Your task to perform on an android device: Find coffee shops on Maps Image 0: 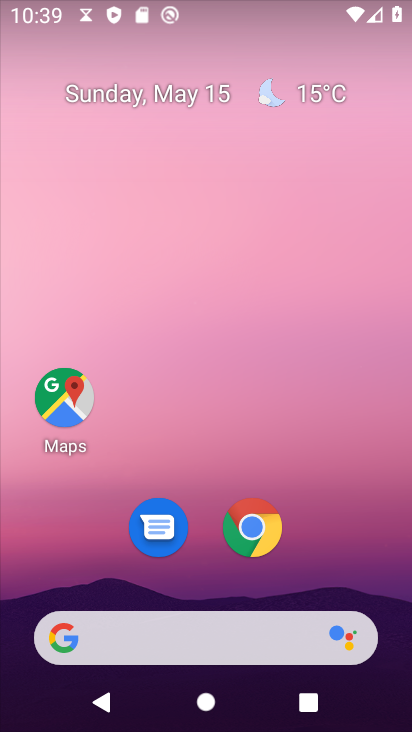
Step 0: click (66, 399)
Your task to perform on an android device: Find coffee shops on Maps Image 1: 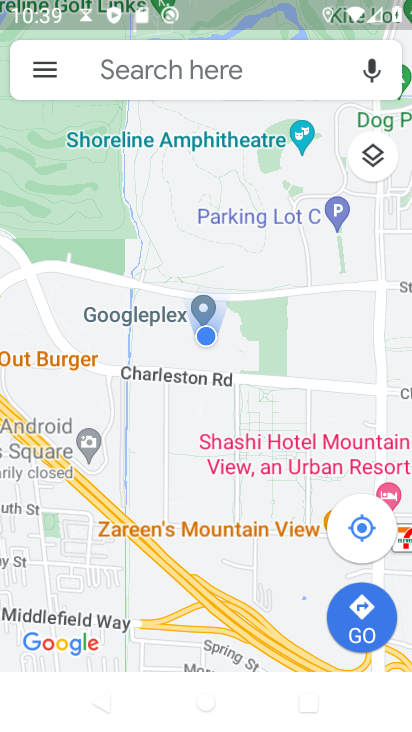
Step 1: click (165, 70)
Your task to perform on an android device: Find coffee shops on Maps Image 2: 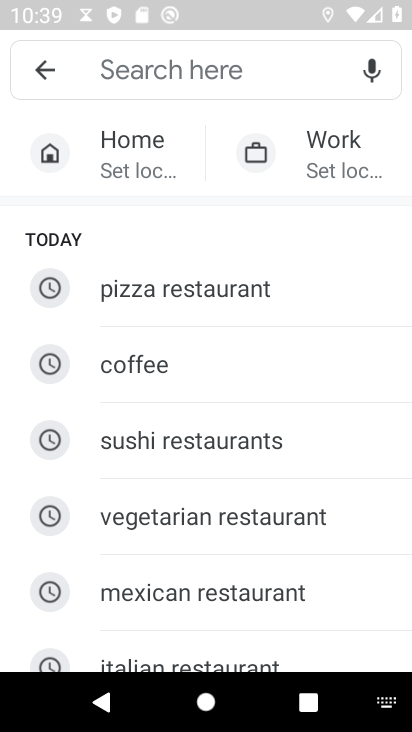
Step 2: type "coffee shops"
Your task to perform on an android device: Find coffee shops on Maps Image 3: 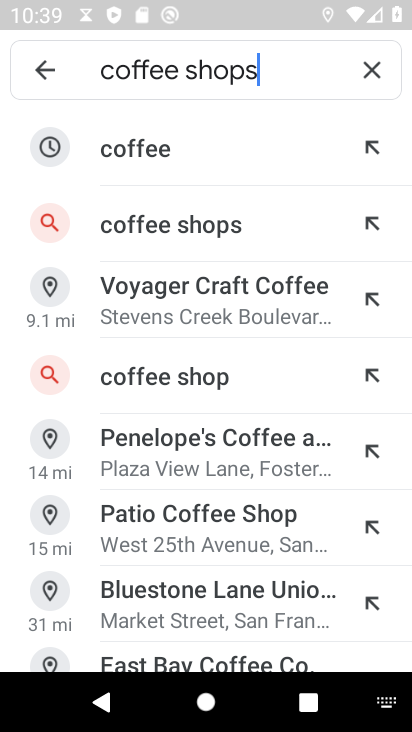
Step 3: click (229, 224)
Your task to perform on an android device: Find coffee shops on Maps Image 4: 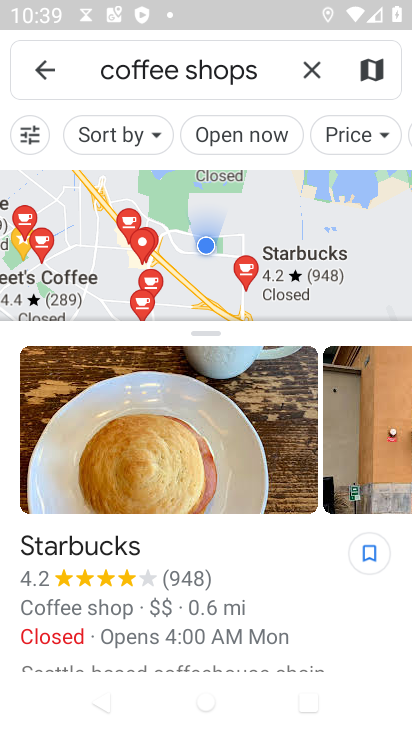
Step 4: task complete